Your task to perform on an android device: Show the shopping cart on walmart. Search for "razer deathadder" on walmart, select the first entry, add it to the cart, then select checkout. Image 0: 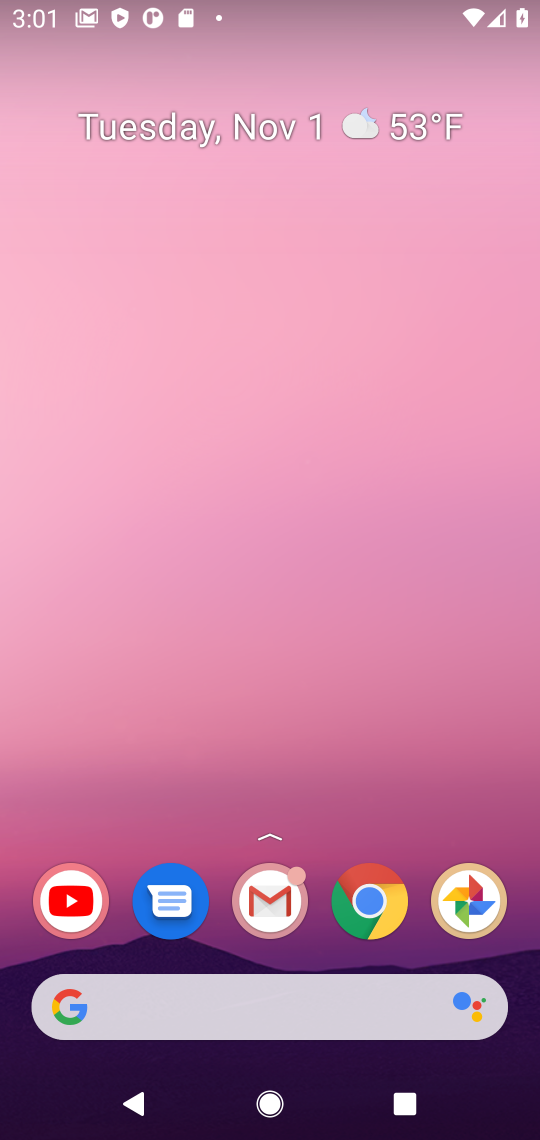
Step 0: click (382, 907)
Your task to perform on an android device: Show the shopping cart on walmart. Search for "razer deathadder" on walmart, select the first entry, add it to the cart, then select checkout. Image 1: 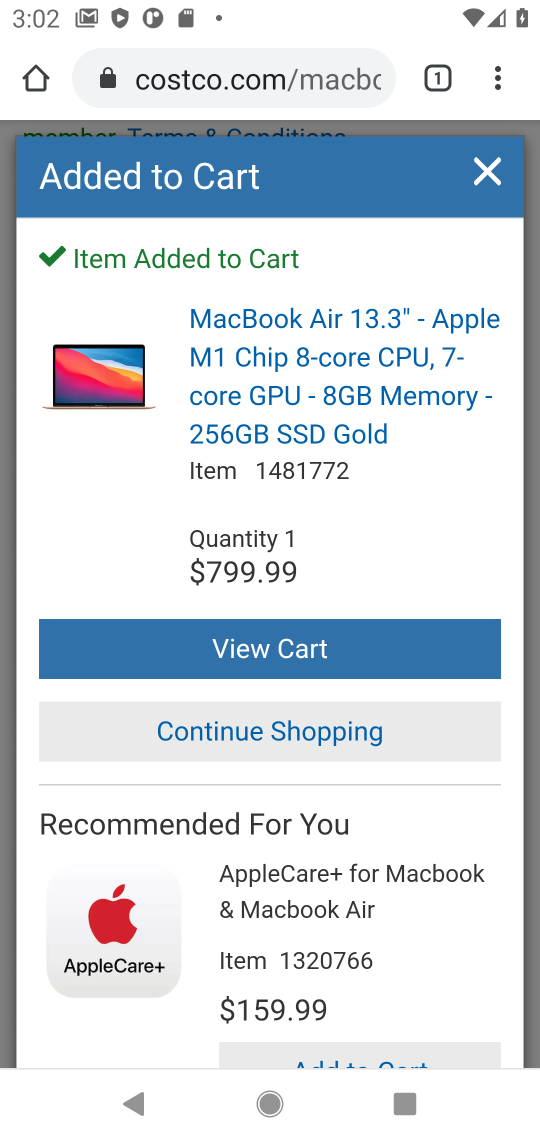
Step 1: click (322, 77)
Your task to perform on an android device: Show the shopping cart on walmart. Search for "razer deathadder" on walmart, select the first entry, add it to the cart, then select checkout. Image 2: 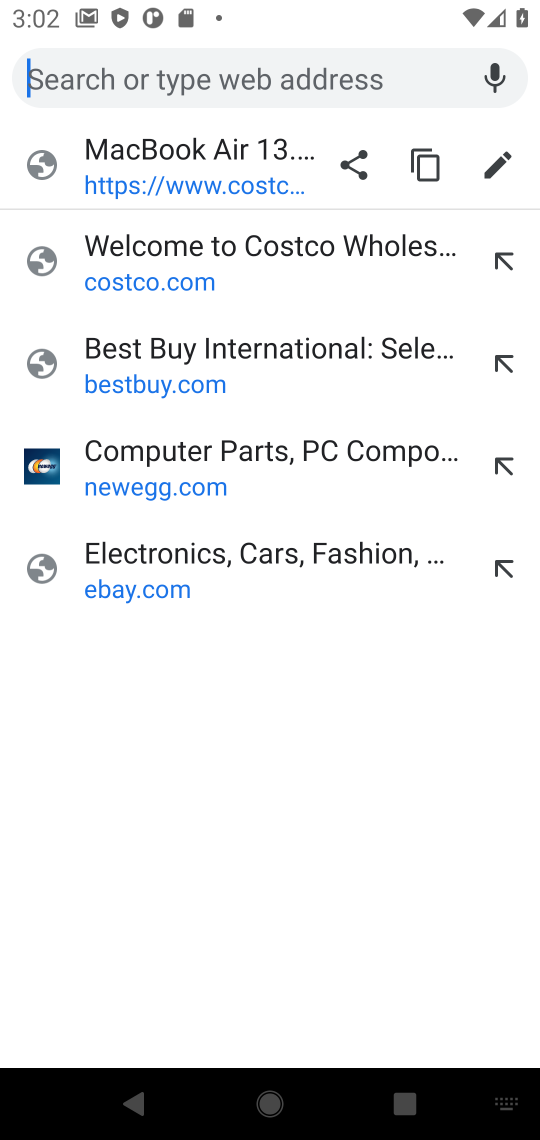
Step 2: type "walmart"
Your task to perform on an android device: Show the shopping cart on walmart. Search for "razer deathadder" on walmart, select the first entry, add it to the cart, then select checkout. Image 3: 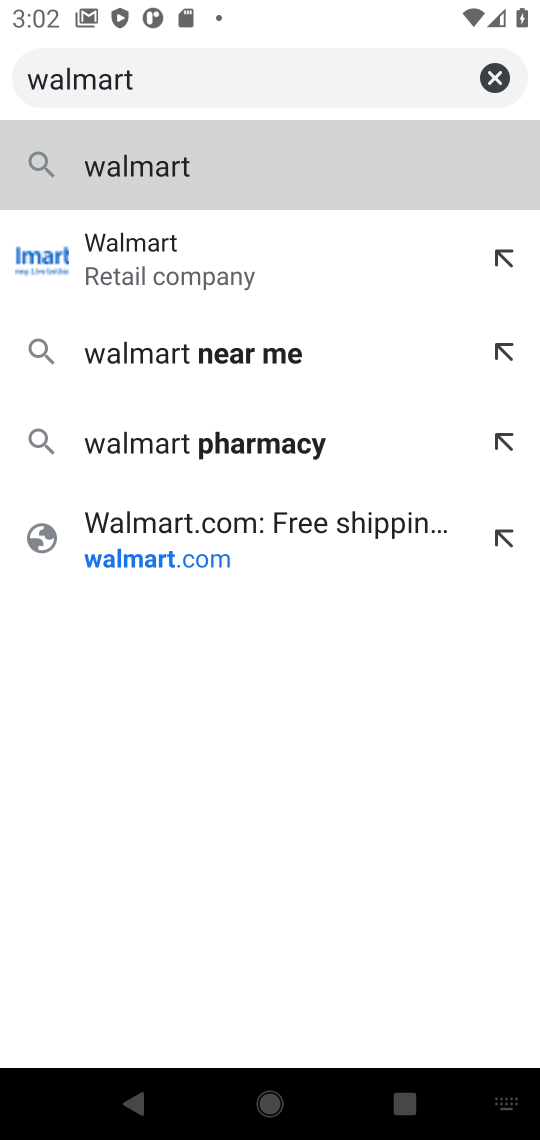
Step 3: click (153, 163)
Your task to perform on an android device: Show the shopping cart on walmart. Search for "razer deathadder" on walmart, select the first entry, add it to the cart, then select checkout. Image 4: 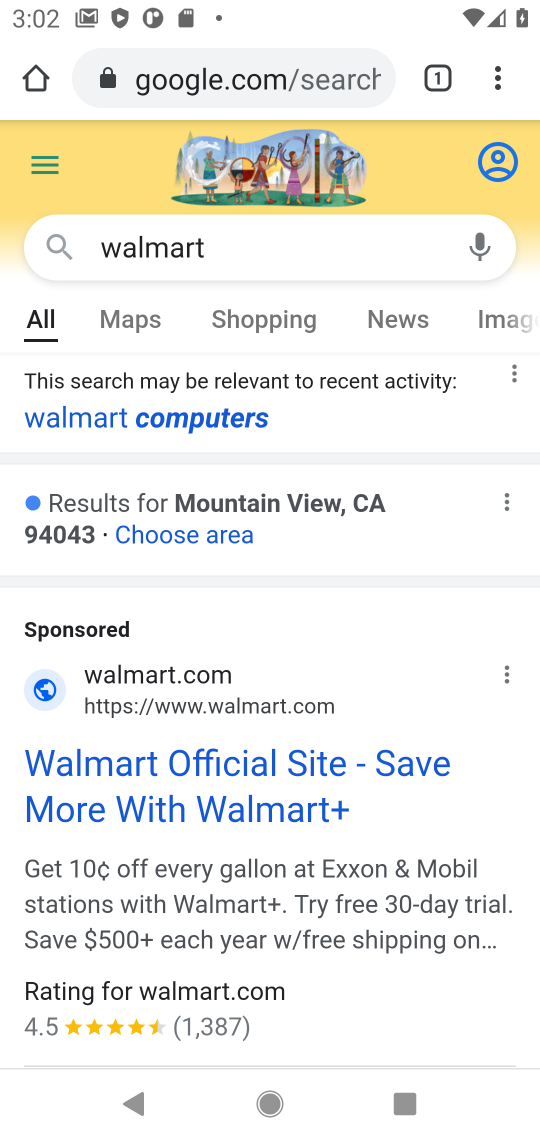
Step 4: drag from (415, 731) to (318, 356)
Your task to perform on an android device: Show the shopping cart on walmart. Search for "razer deathadder" on walmart, select the first entry, add it to the cart, then select checkout. Image 5: 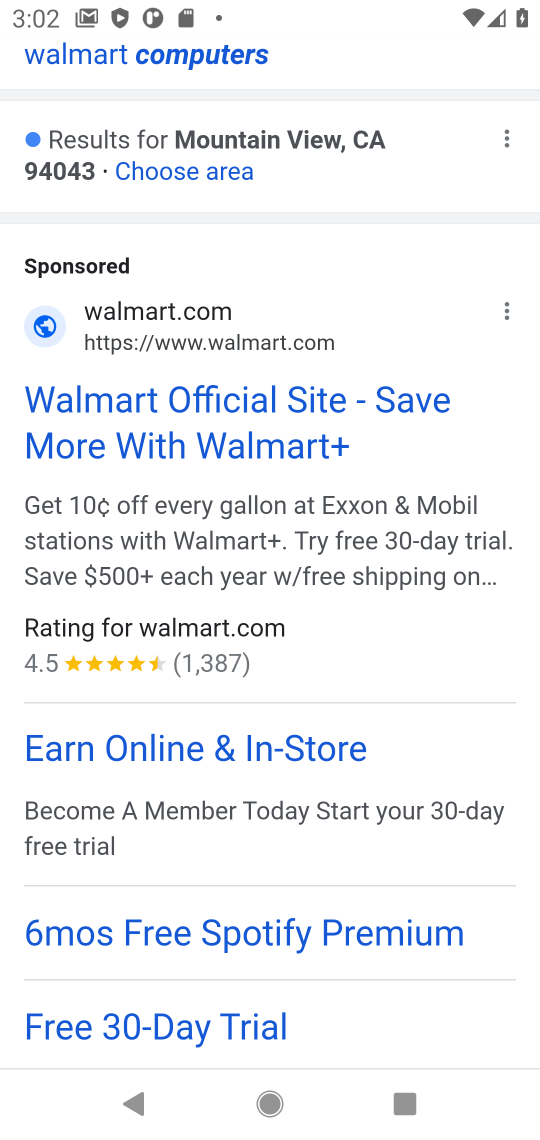
Step 5: click (315, 408)
Your task to perform on an android device: Show the shopping cart on walmart. Search for "razer deathadder" on walmart, select the first entry, add it to the cart, then select checkout. Image 6: 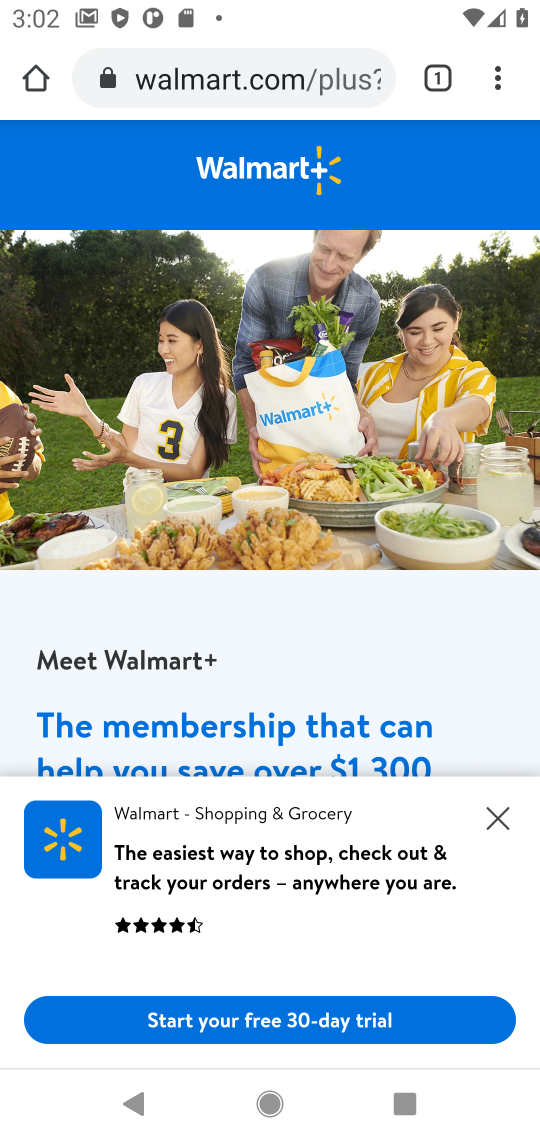
Step 6: click (502, 809)
Your task to perform on an android device: Show the shopping cart on walmart. Search for "razer deathadder" on walmart, select the first entry, add it to the cart, then select checkout. Image 7: 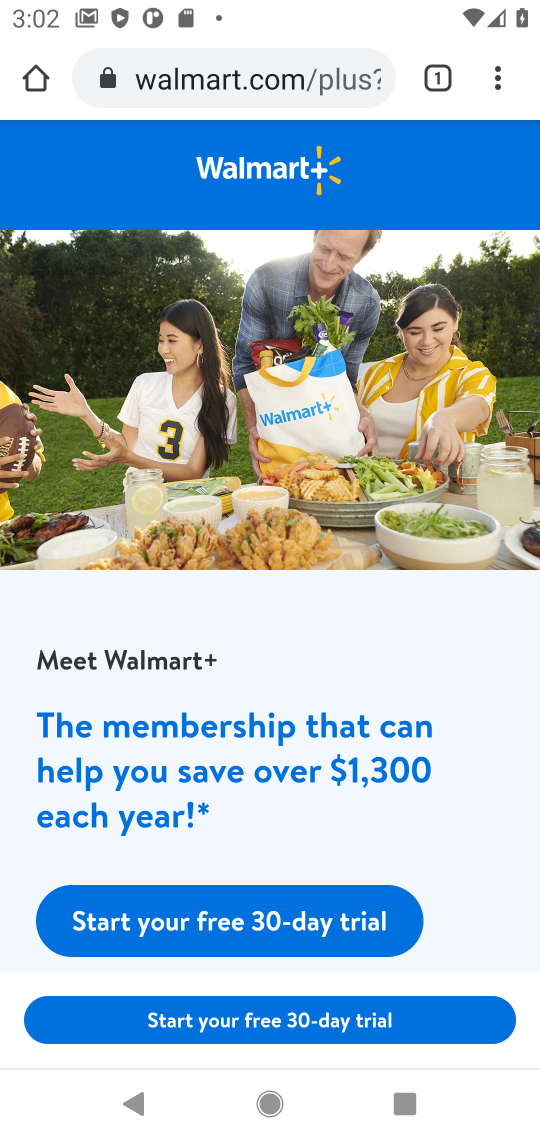
Step 7: press back button
Your task to perform on an android device: Show the shopping cart on walmart. Search for "razer deathadder" on walmart, select the first entry, add it to the cart, then select checkout. Image 8: 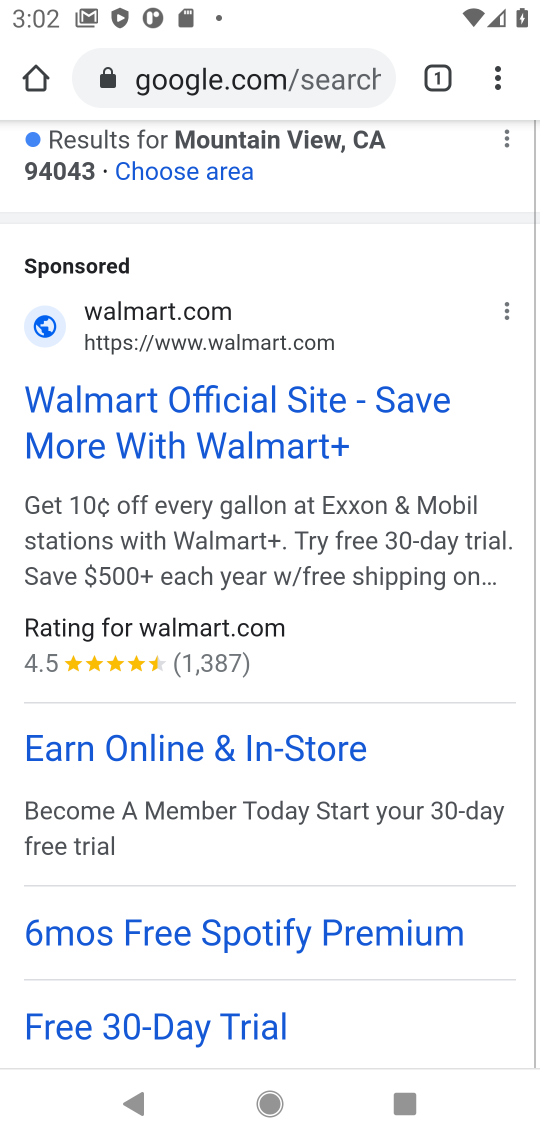
Step 8: drag from (393, 675) to (374, 12)
Your task to perform on an android device: Show the shopping cart on walmart. Search for "razer deathadder" on walmart, select the first entry, add it to the cart, then select checkout. Image 9: 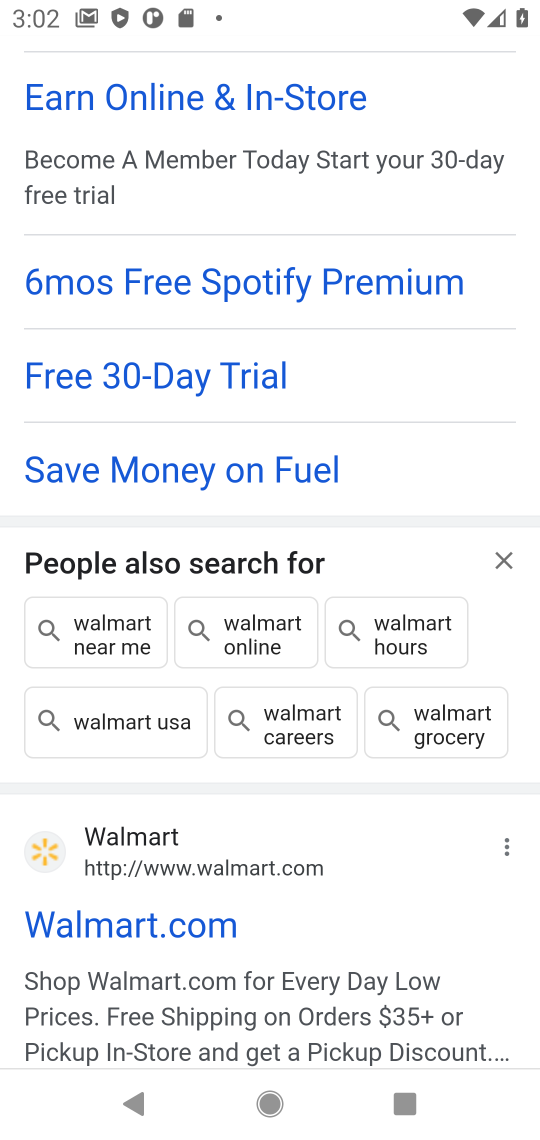
Step 9: click (105, 922)
Your task to perform on an android device: Show the shopping cart on walmart. Search for "razer deathadder" on walmart, select the first entry, add it to the cart, then select checkout. Image 10: 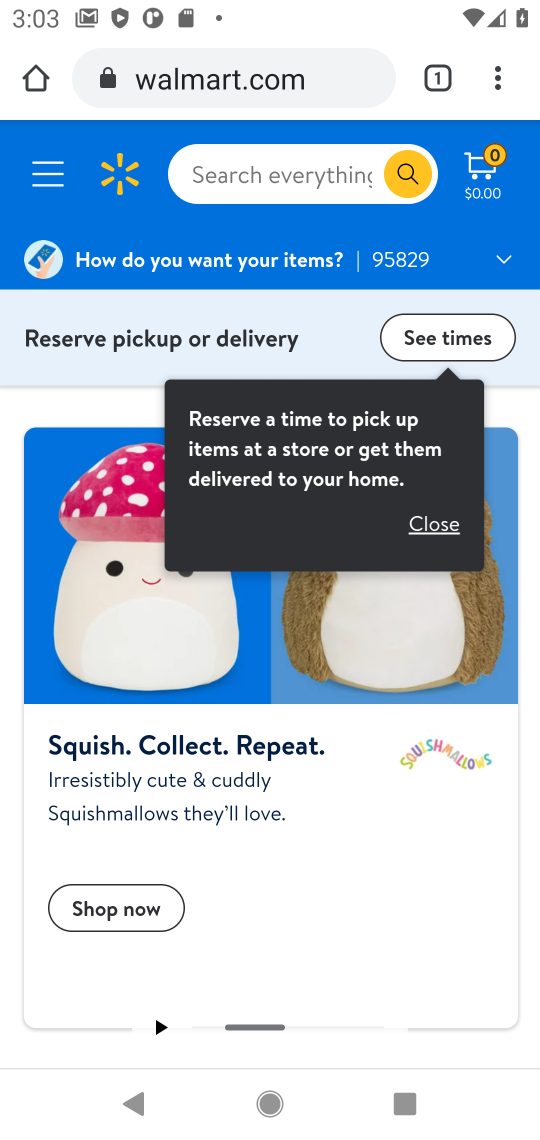
Step 10: click (311, 171)
Your task to perform on an android device: Show the shopping cart on walmart. Search for "razer deathadder" on walmart, select the first entry, add it to the cart, then select checkout. Image 11: 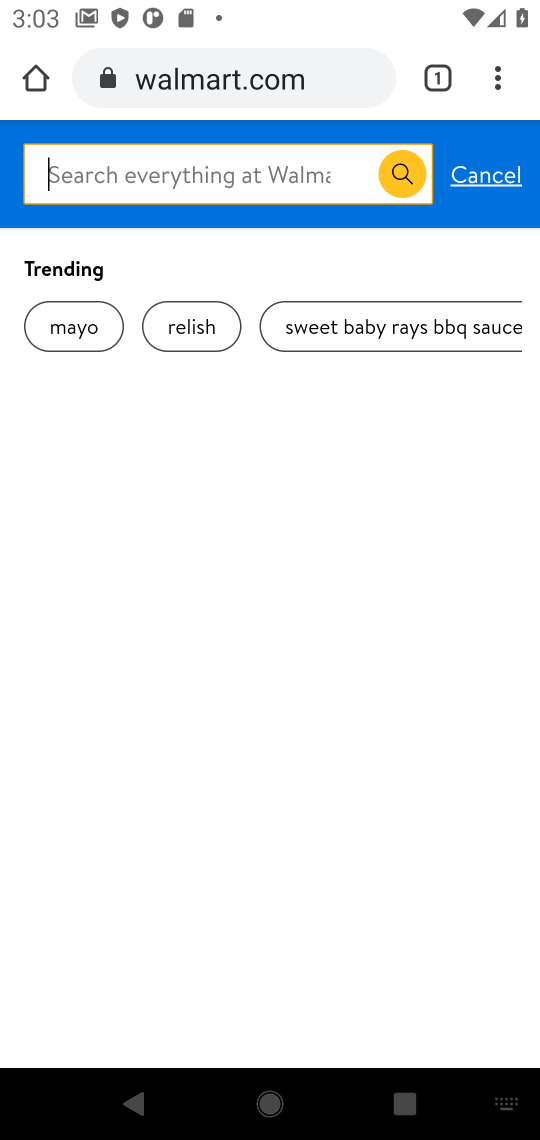
Step 11: click (492, 168)
Your task to perform on an android device: Show the shopping cart on walmart. Search for "razer deathadder" on walmart, select the first entry, add it to the cart, then select checkout. Image 12: 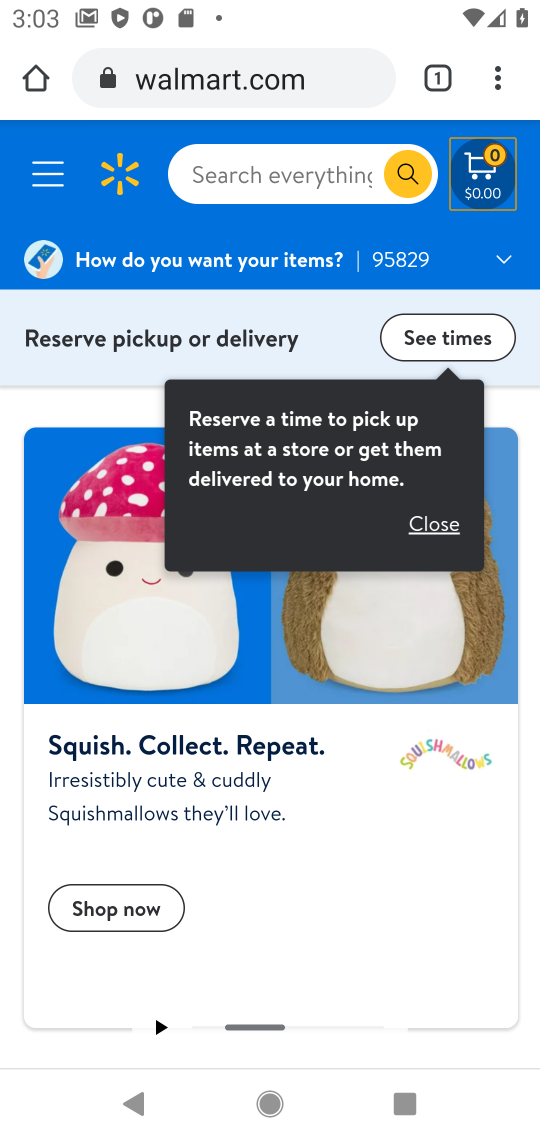
Step 12: click (489, 173)
Your task to perform on an android device: Show the shopping cart on walmart. Search for "razer deathadder" on walmart, select the first entry, add it to the cart, then select checkout. Image 13: 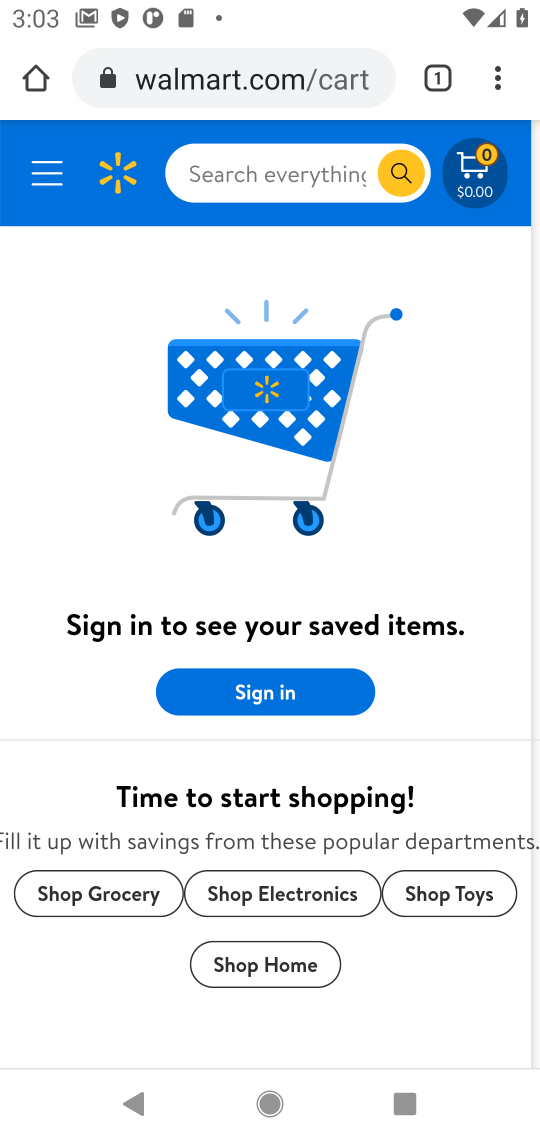
Step 13: click (321, 171)
Your task to perform on an android device: Show the shopping cart on walmart. Search for "razer deathadder" on walmart, select the first entry, add it to the cart, then select checkout. Image 14: 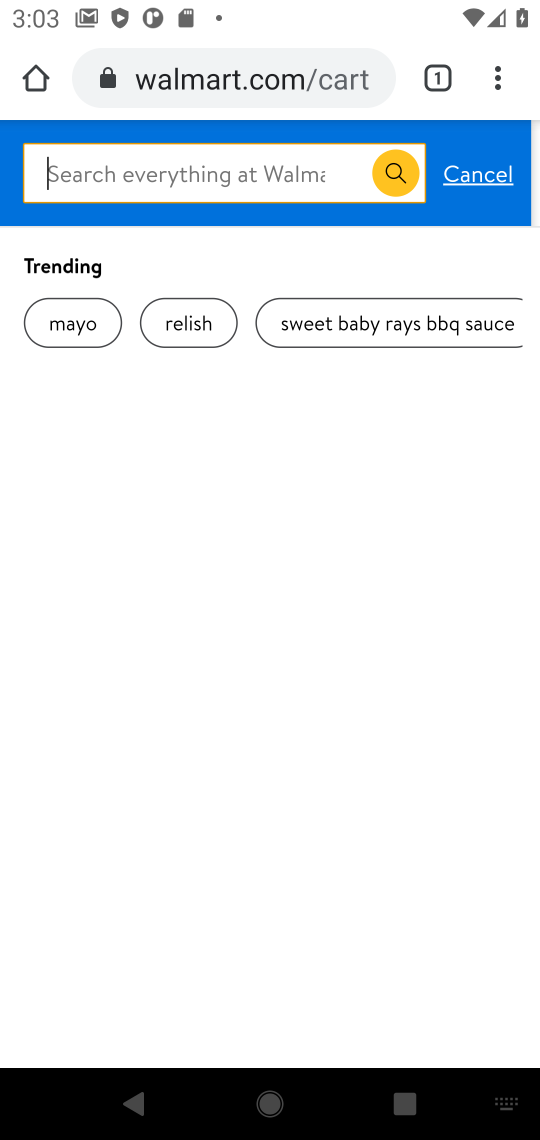
Step 14: type "razer deathadder"
Your task to perform on an android device: Show the shopping cart on walmart. Search for "razer deathadder" on walmart, select the first entry, add it to the cart, then select checkout. Image 15: 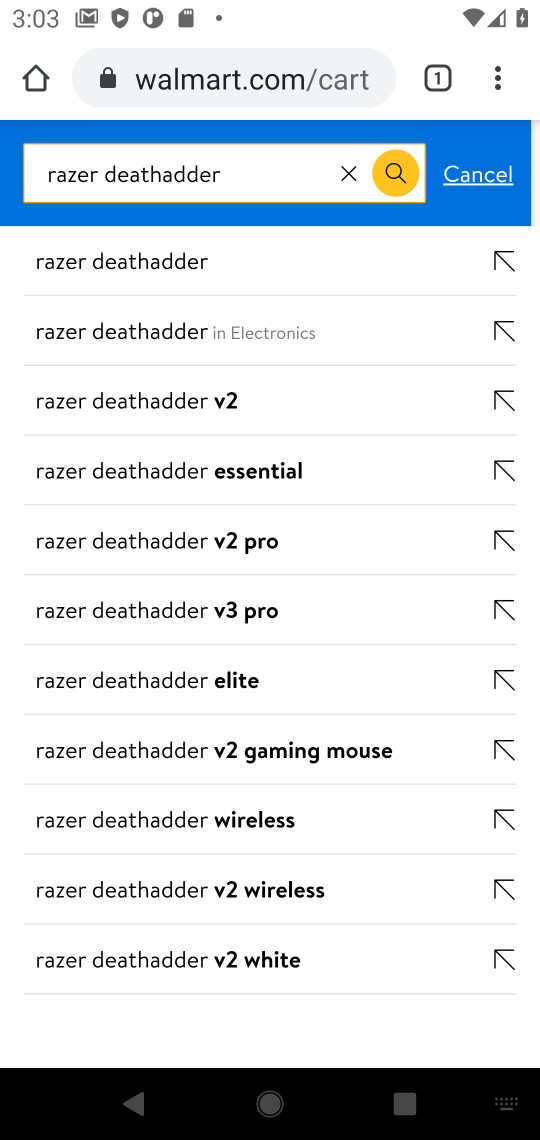
Step 15: click (133, 269)
Your task to perform on an android device: Show the shopping cart on walmart. Search for "razer deathadder" on walmart, select the first entry, add it to the cart, then select checkout. Image 16: 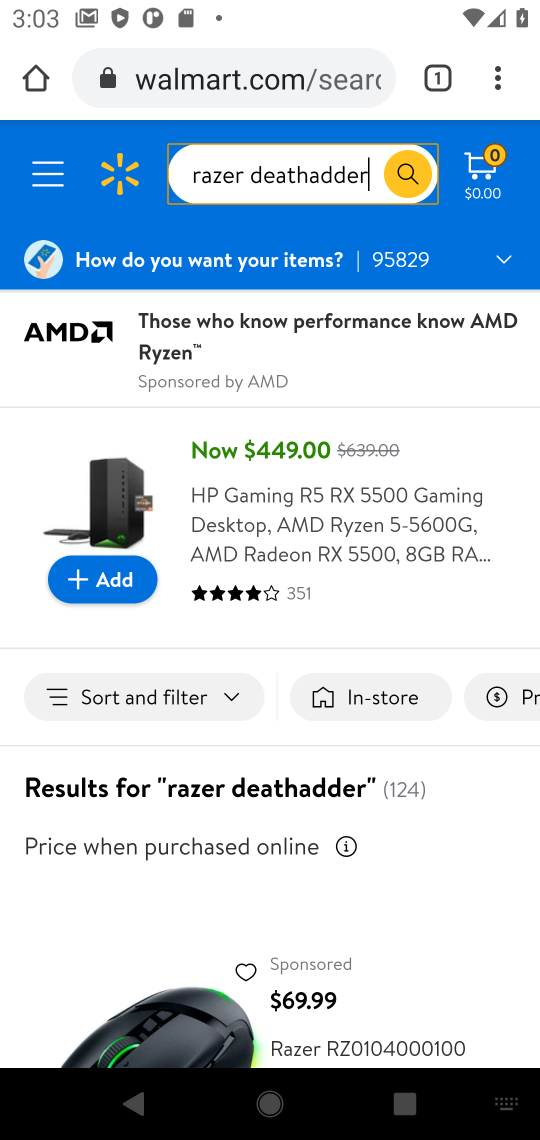
Step 16: drag from (396, 806) to (369, 574)
Your task to perform on an android device: Show the shopping cart on walmart. Search for "razer deathadder" on walmart, select the first entry, add it to the cart, then select checkout. Image 17: 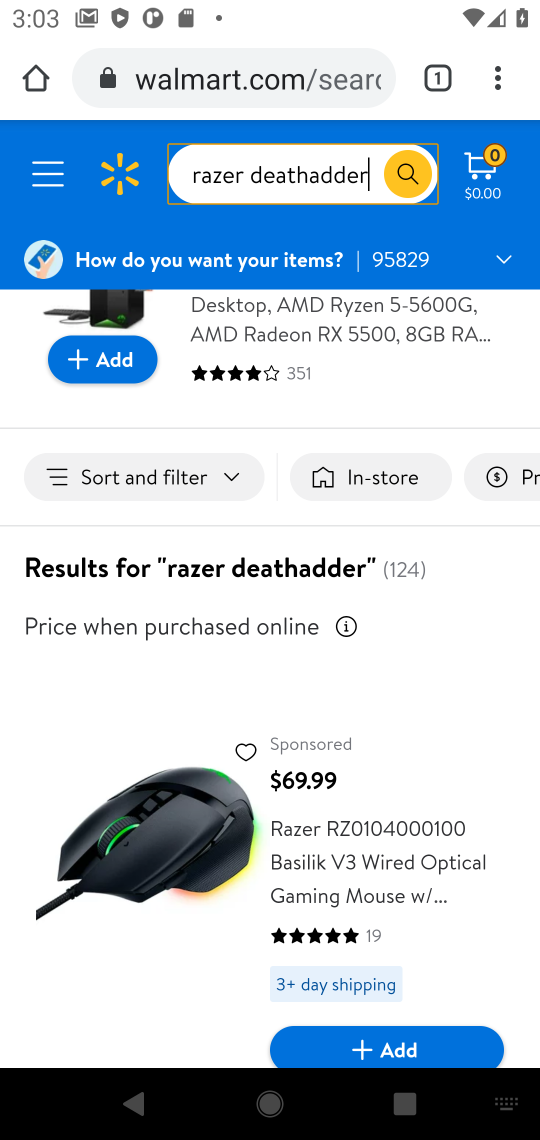
Step 17: click (165, 856)
Your task to perform on an android device: Show the shopping cart on walmart. Search for "razer deathadder" on walmart, select the first entry, add it to the cart, then select checkout. Image 18: 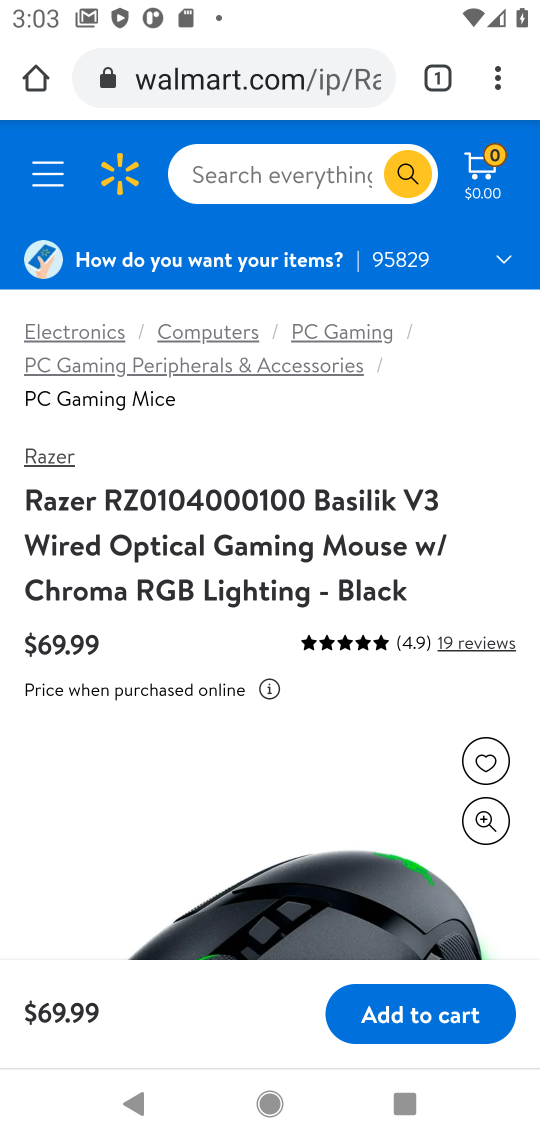
Step 18: click (425, 1016)
Your task to perform on an android device: Show the shopping cart on walmart. Search for "razer deathadder" on walmart, select the first entry, add it to the cart, then select checkout. Image 19: 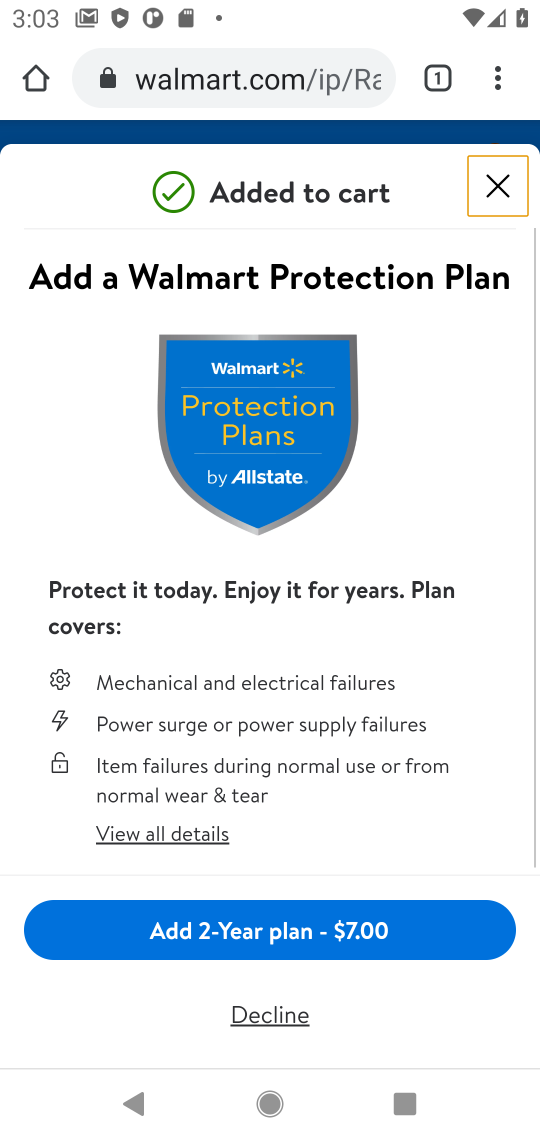
Step 19: click (264, 1016)
Your task to perform on an android device: Show the shopping cart on walmart. Search for "razer deathadder" on walmart, select the first entry, add it to the cart, then select checkout. Image 20: 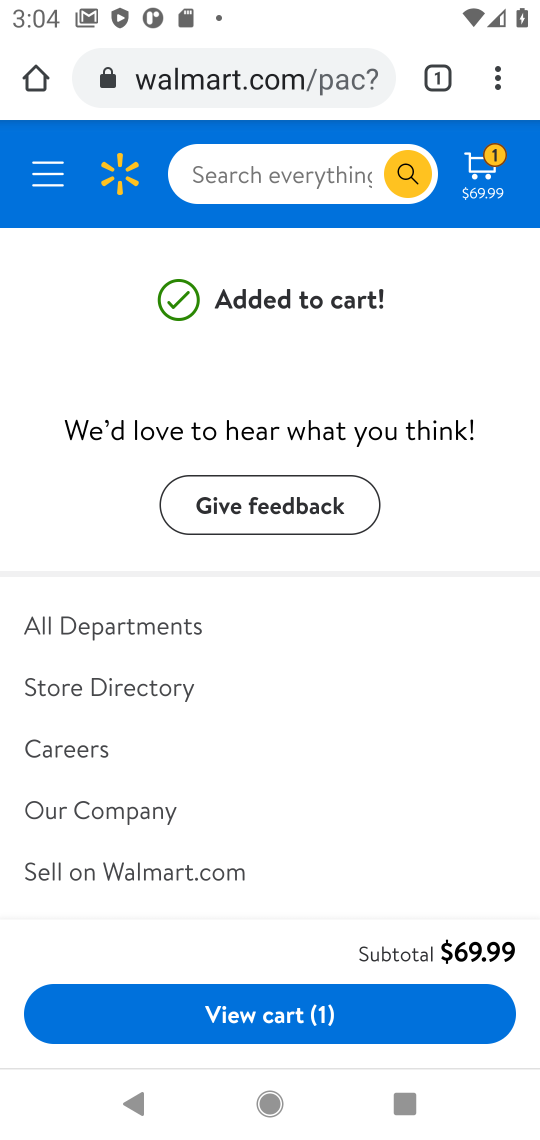
Step 20: click (278, 1013)
Your task to perform on an android device: Show the shopping cart on walmart. Search for "razer deathadder" on walmart, select the first entry, add it to the cart, then select checkout. Image 21: 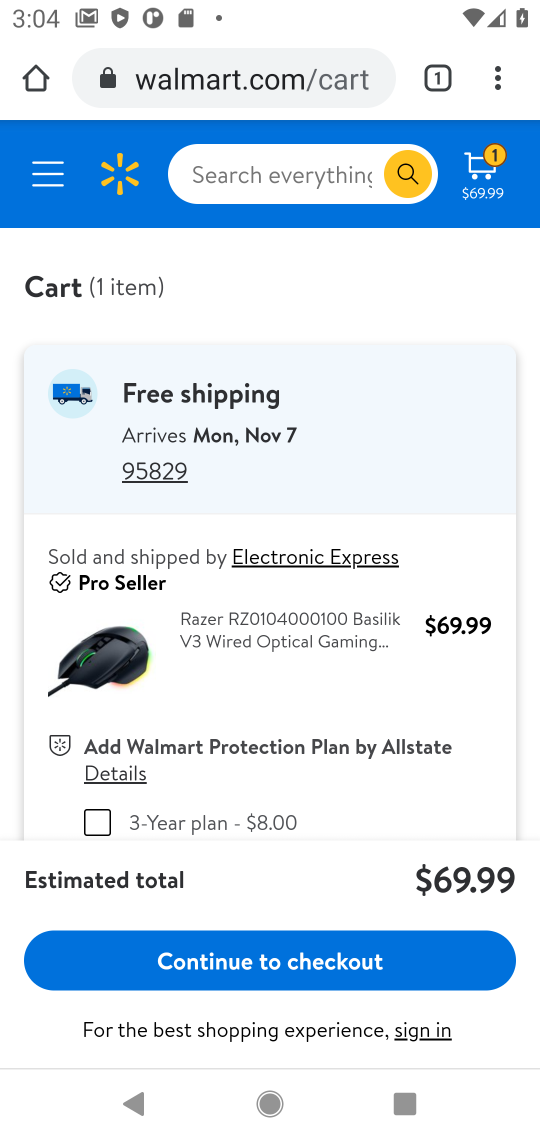
Step 21: click (235, 966)
Your task to perform on an android device: Show the shopping cart on walmart. Search for "razer deathadder" on walmart, select the first entry, add it to the cart, then select checkout. Image 22: 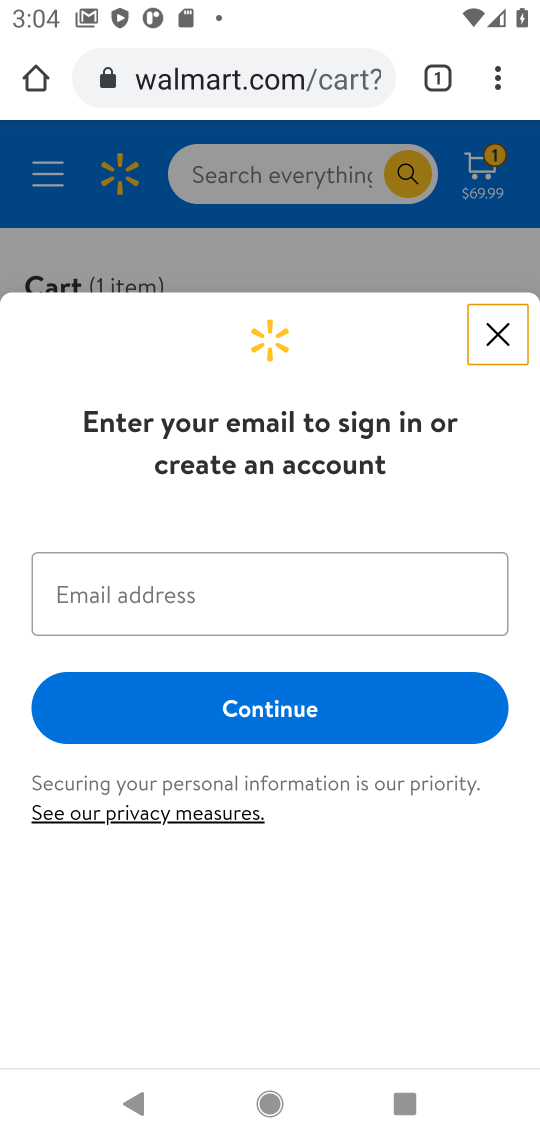
Step 22: click (499, 341)
Your task to perform on an android device: Show the shopping cart on walmart. Search for "razer deathadder" on walmart, select the first entry, add it to the cart, then select checkout. Image 23: 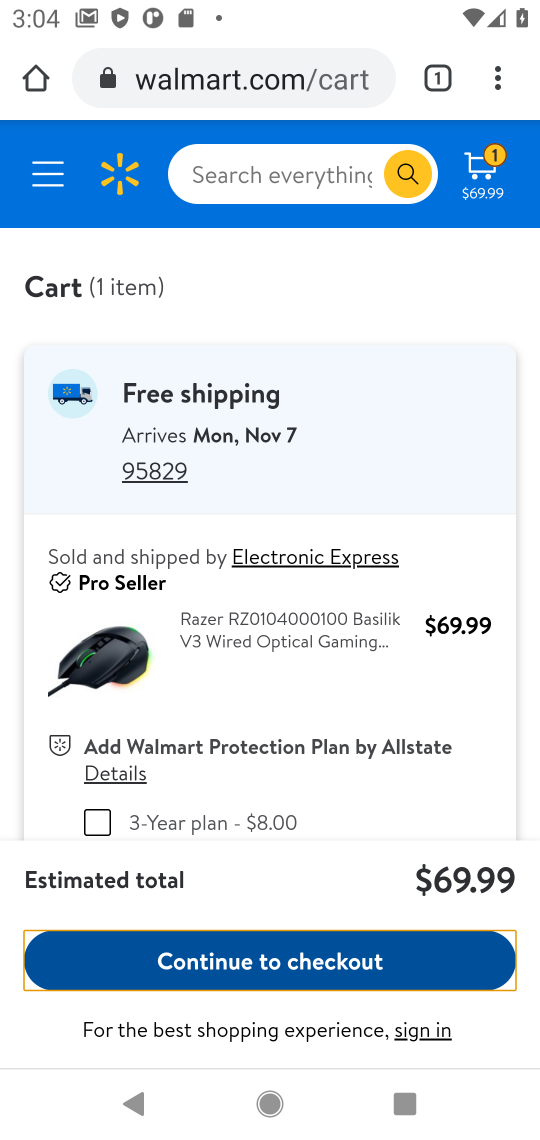
Step 23: task complete